Your task to perform on an android device: turn on javascript in the chrome app Image 0: 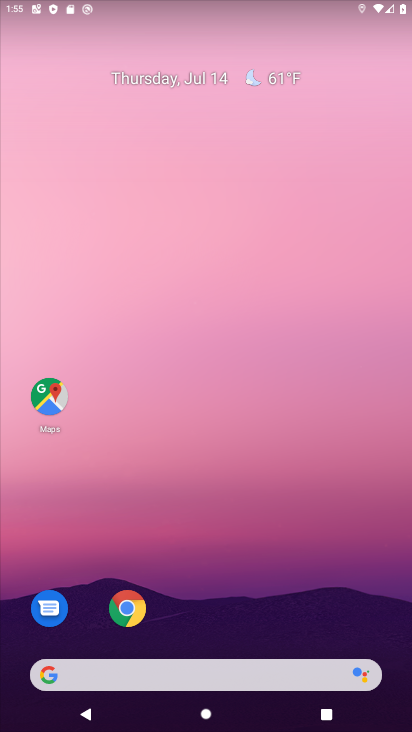
Step 0: click (126, 608)
Your task to perform on an android device: turn on javascript in the chrome app Image 1: 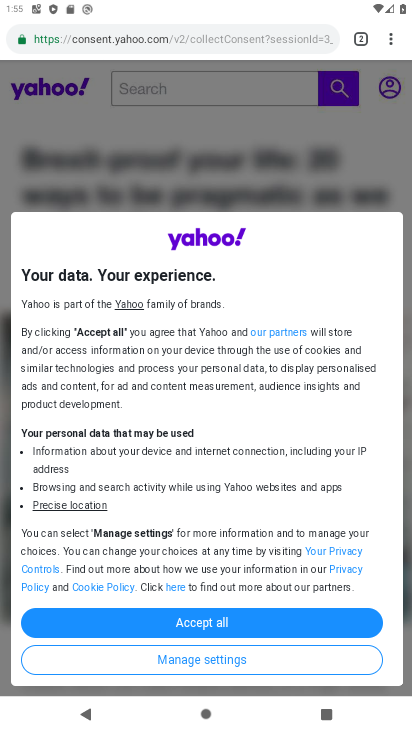
Step 1: click (391, 37)
Your task to perform on an android device: turn on javascript in the chrome app Image 2: 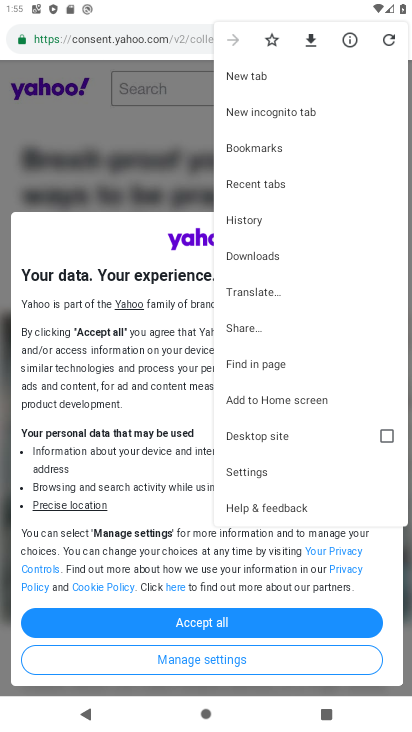
Step 2: click (264, 473)
Your task to perform on an android device: turn on javascript in the chrome app Image 3: 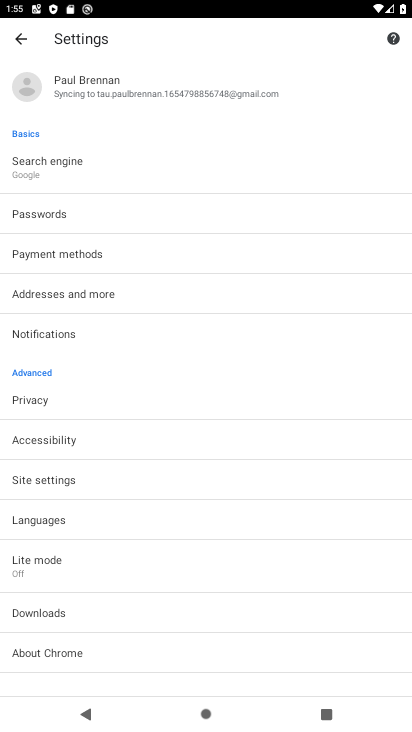
Step 3: click (54, 478)
Your task to perform on an android device: turn on javascript in the chrome app Image 4: 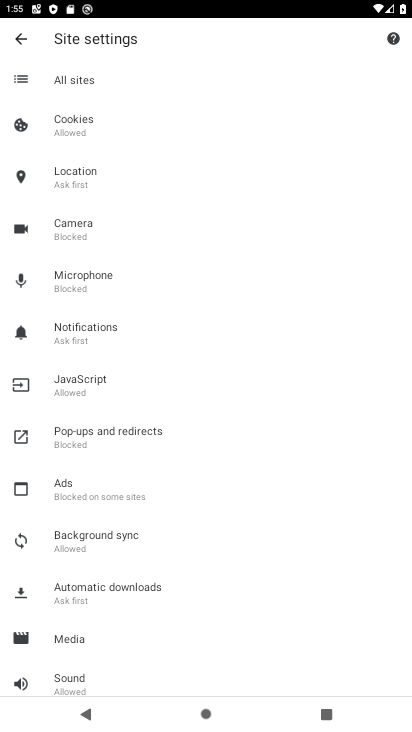
Step 4: click (82, 388)
Your task to perform on an android device: turn on javascript in the chrome app Image 5: 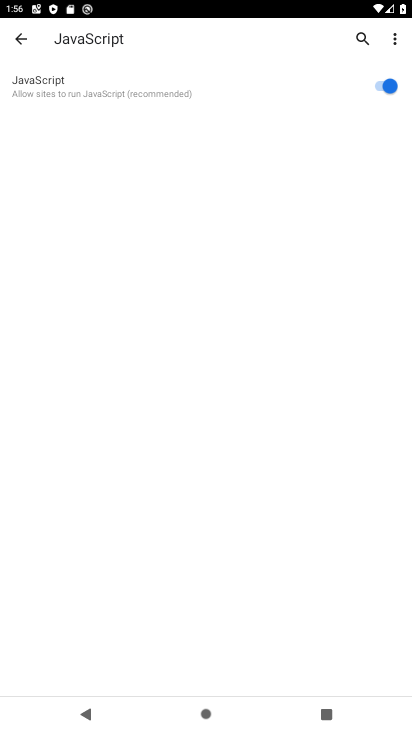
Step 5: task complete